Your task to perform on an android device: turn on bluetooth scan Image 0: 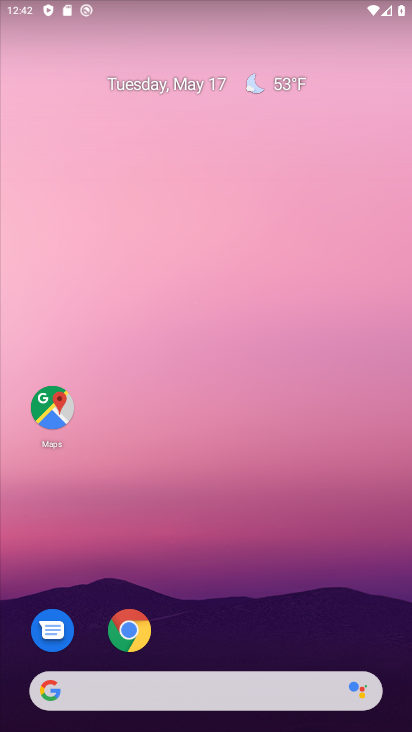
Step 0: drag from (172, 657) to (237, 191)
Your task to perform on an android device: turn on bluetooth scan Image 1: 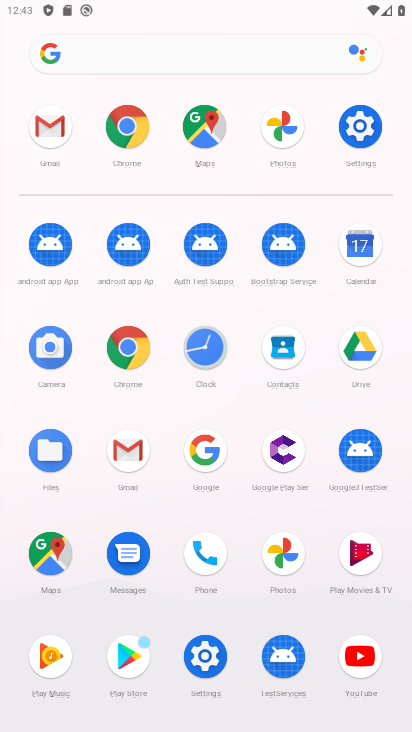
Step 1: click (367, 153)
Your task to perform on an android device: turn on bluetooth scan Image 2: 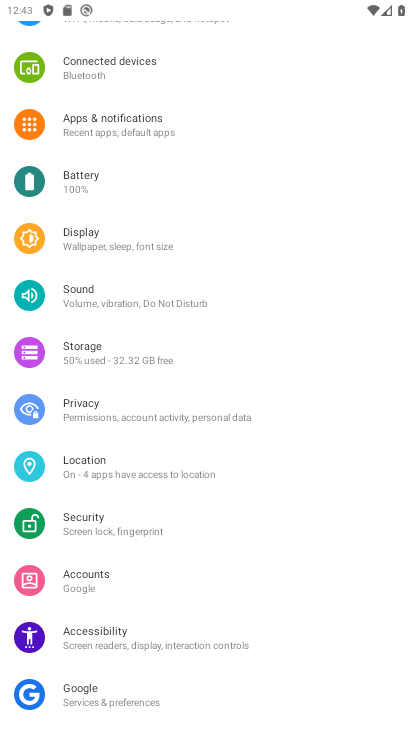
Step 2: drag from (175, 321) to (179, 685)
Your task to perform on an android device: turn on bluetooth scan Image 3: 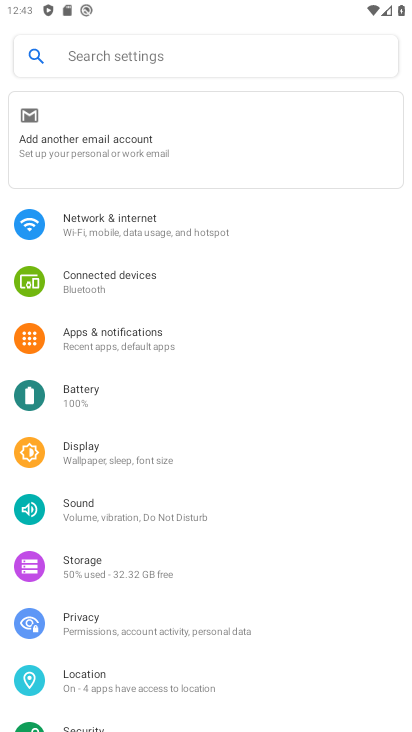
Step 3: click (173, 284)
Your task to perform on an android device: turn on bluetooth scan Image 4: 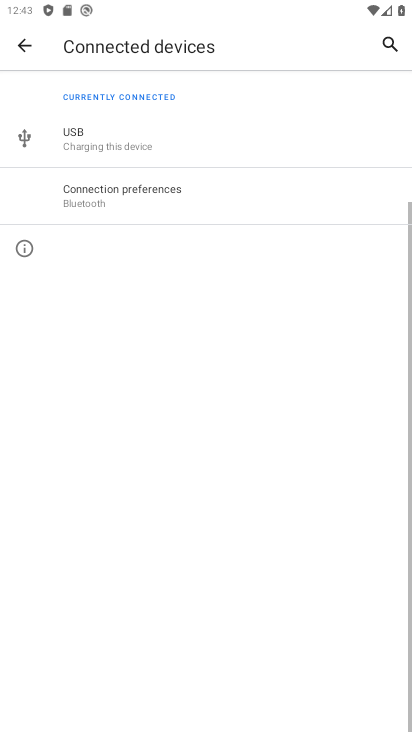
Step 4: click (138, 209)
Your task to perform on an android device: turn on bluetooth scan Image 5: 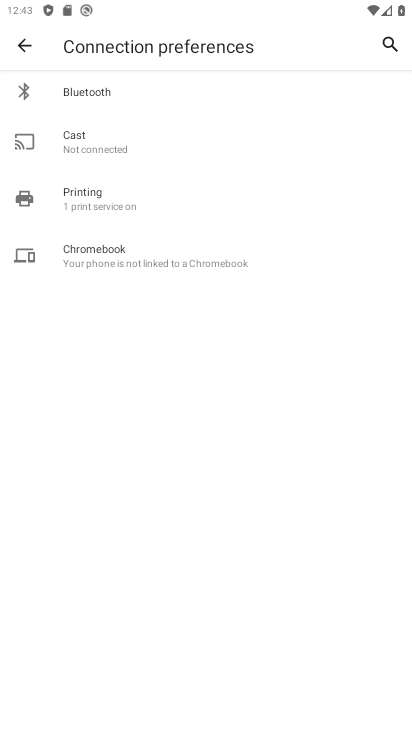
Step 5: click (92, 104)
Your task to perform on an android device: turn on bluetooth scan Image 6: 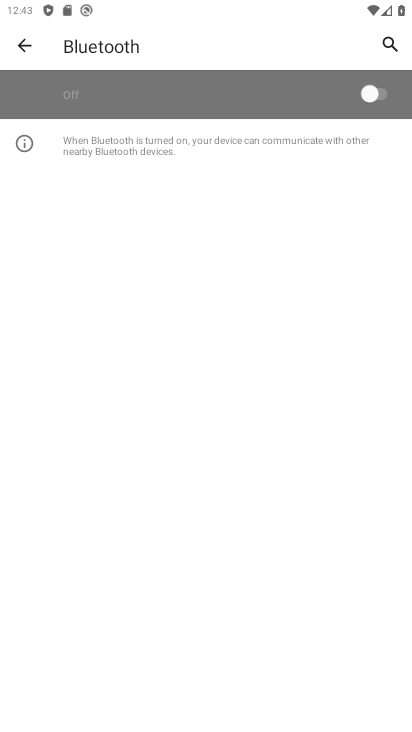
Step 6: click (148, 107)
Your task to perform on an android device: turn on bluetooth scan Image 7: 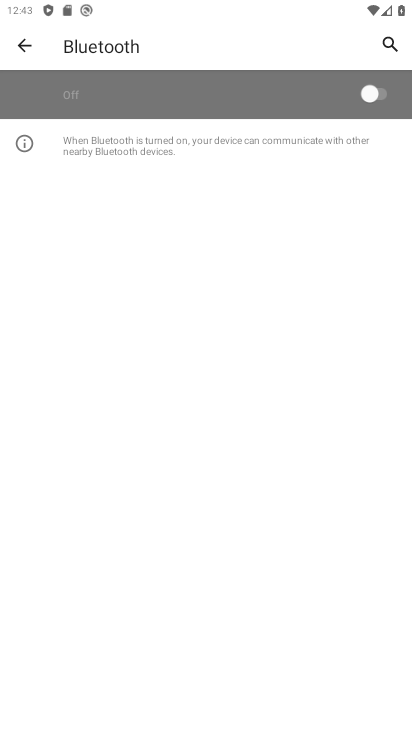
Step 7: task complete